Your task to perform on an android device: Show me recent news Image 0: 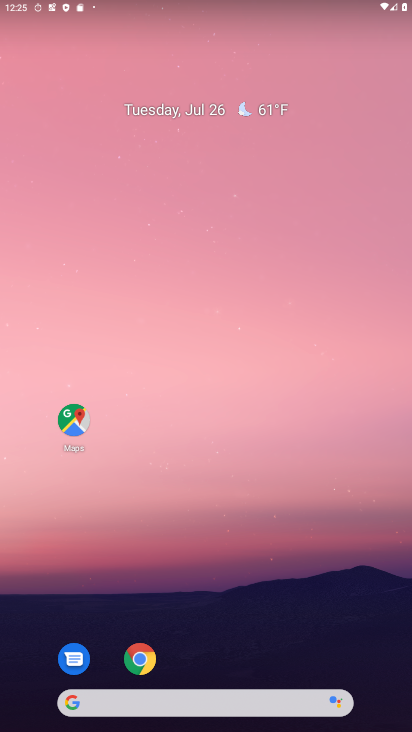
Step 0: click (121, 701)
Your task to perform on an android device: Show me recent news Image 1: 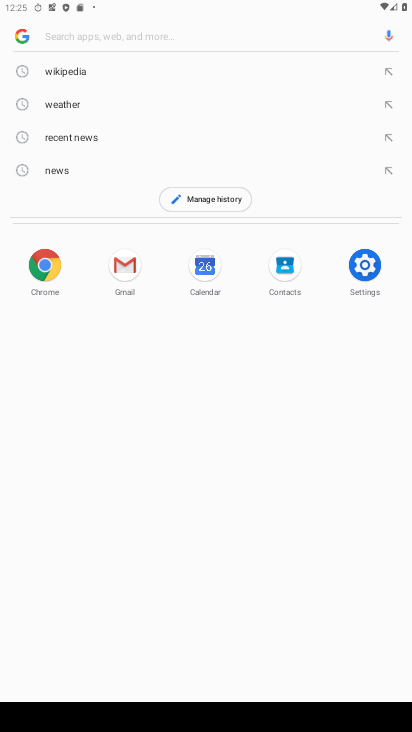
Step 1: type "recent news"
Your task to perform on an android device: Show me recent news Image 2: 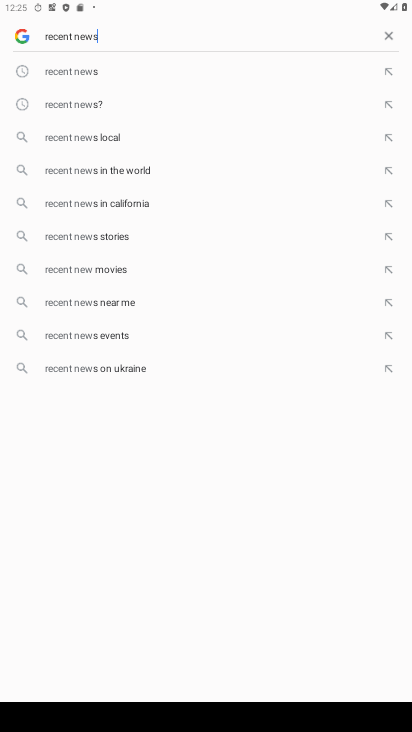
Step 2: type ""
Your task to perform on an android device: Show me recent news Image 3: 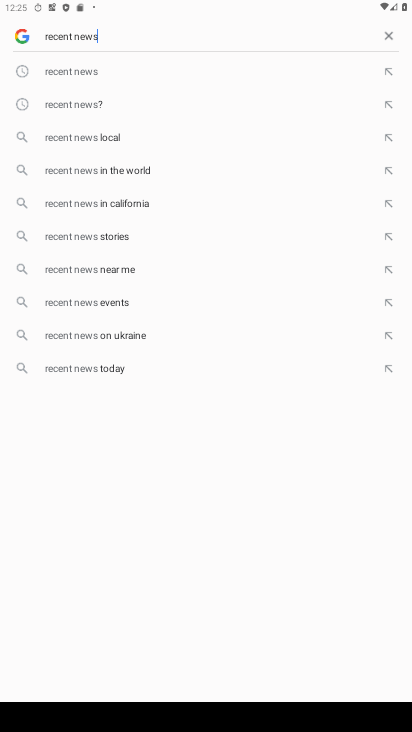
Step 3: click (53, 75)
Your task to perform on an android device: Show me recent news Image 4: 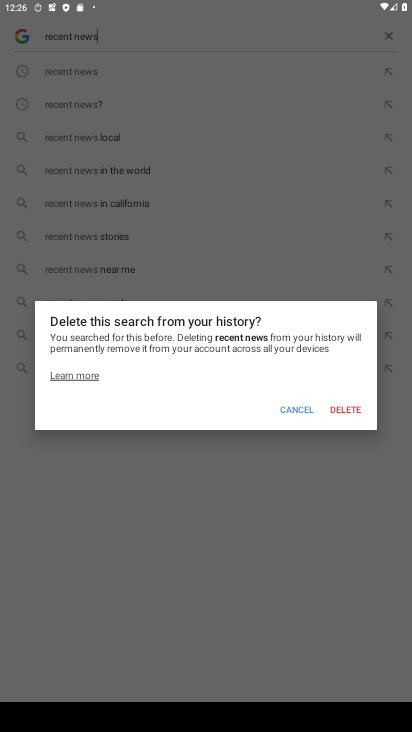
Step 4: click (297, 411)
Your task to perform on an android device: Show me recent news Image 5: 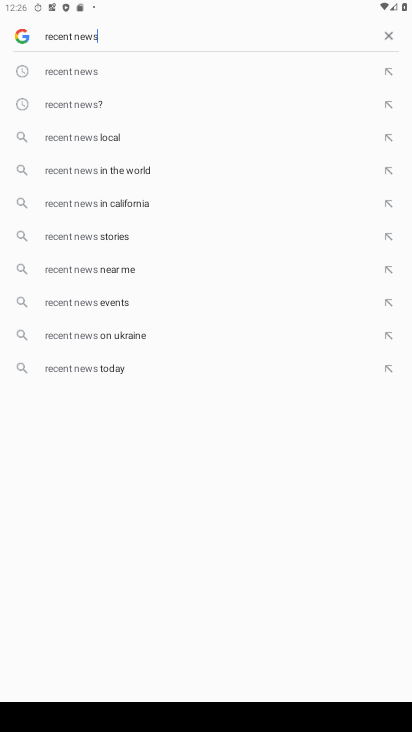
Step 5: click (86, 81)
Your task to perform on an android device: Show me recent news Image 6: 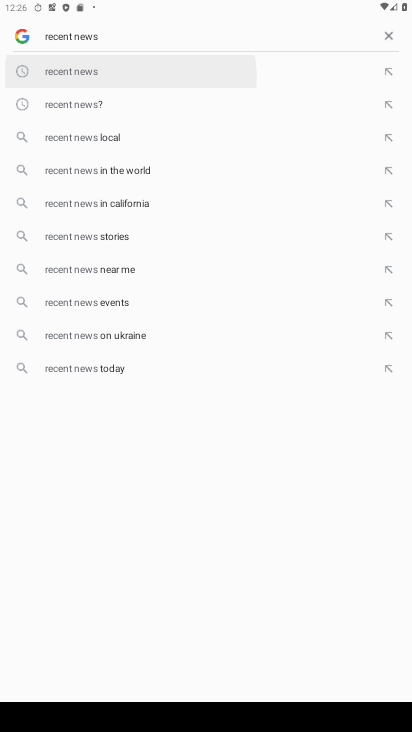
Step 6: click (83, 68)
Your task to perform on an android device: Show me recent news Image 7: 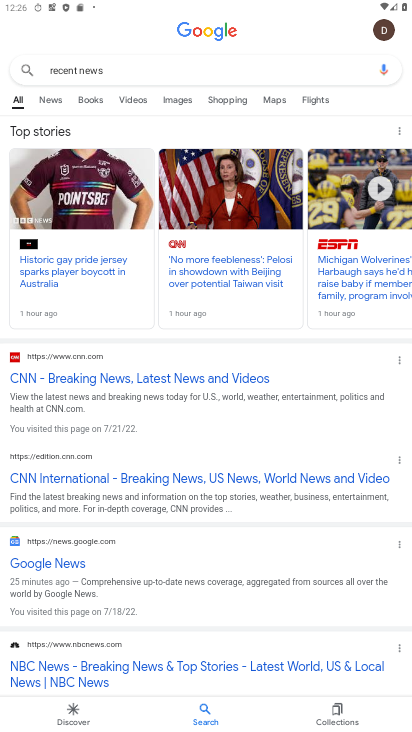
Step 7: task complete